Your task to perform on an android device: find which apps use the phone's location Image 0: 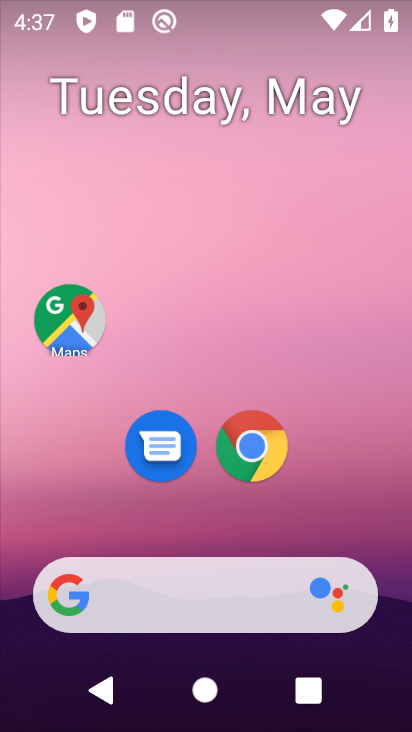
Step 0: drag from (189, 532) to (245, 11)
Your task to perform on an android device: find which apps use the phone's location Image 1: 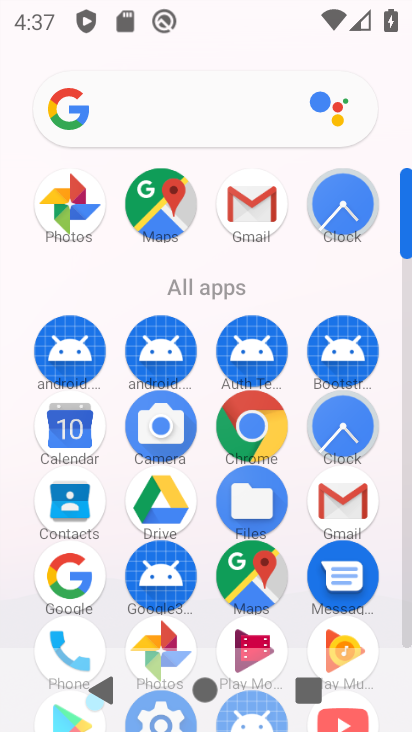
Step 1: drag from (289, 102) to (291, 33)
Your task to perform on an android device: find which apps use the phone's location Image 2: 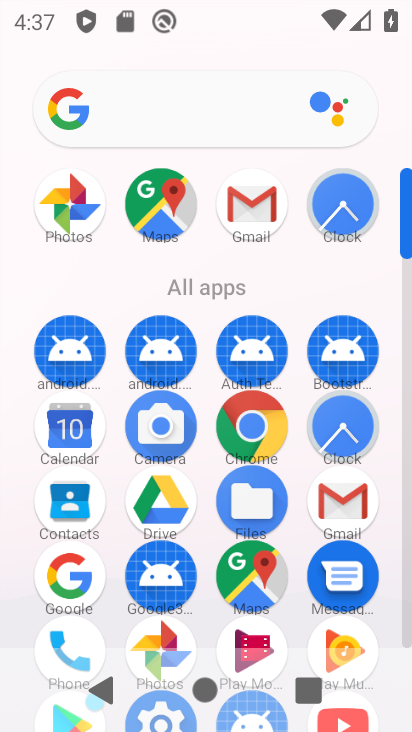
Step 2: drag from (299, 296) to (302, 40)
Your task to perform on an android device: find which apps use the phone's location Image 3: 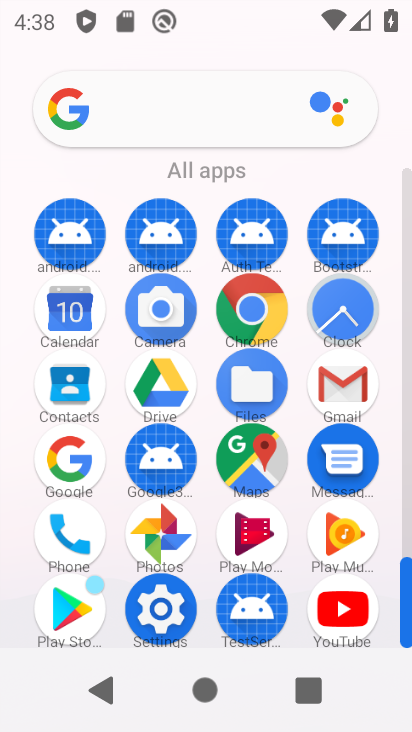
Step 3: drag from (399, 228) to (64, 532)
Your task to perform on an android device: find which apps use the phone's location Image 4: 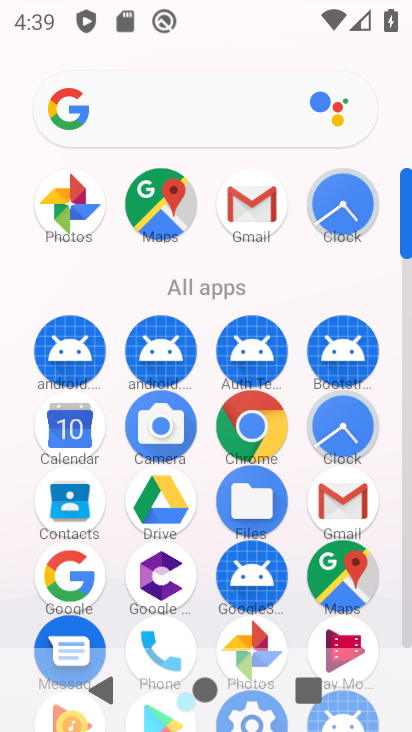
Step 4: drag from (192, 322) to (263, 52)
Your task to perform on an android device: find which apps use the phone's location Image 5: 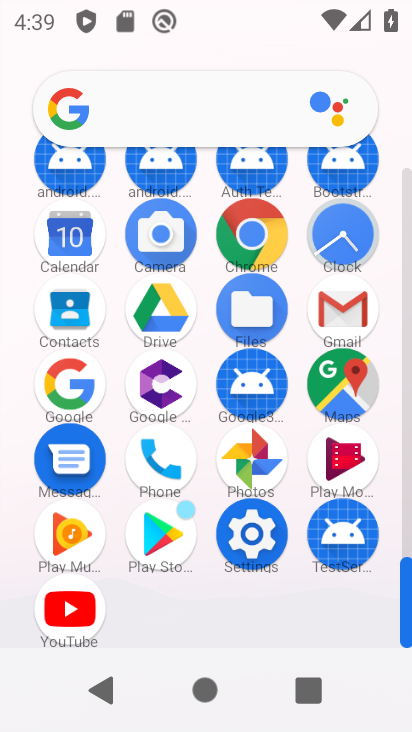
Step 5: click (145, 468)
Your task to perform on an android device: find which apps use the phone's location Image 6: 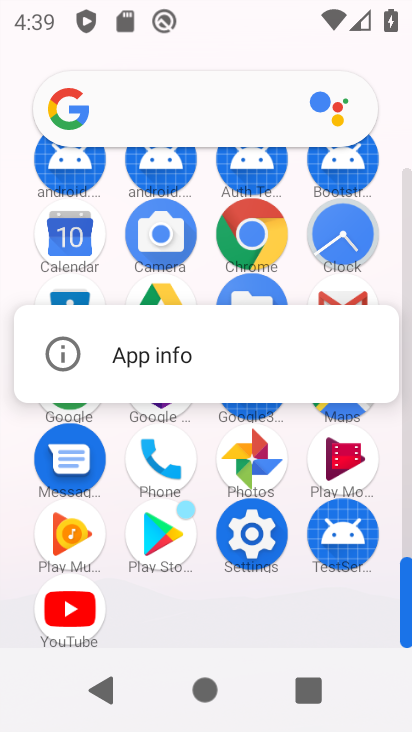
Step 6: click (142, 359)
Your task to perform on an android device: find which apps use the phone's location Image 7: 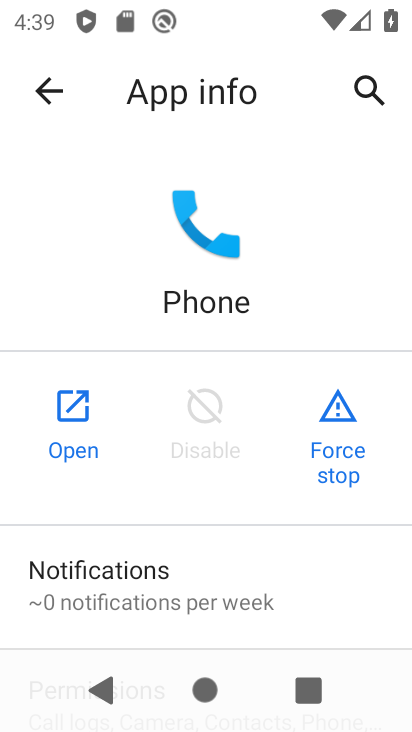
Step 7: drag from (234, 559) to (290, 136)
Your task to perform on an android device: find which apps use the phone's location Image 8: 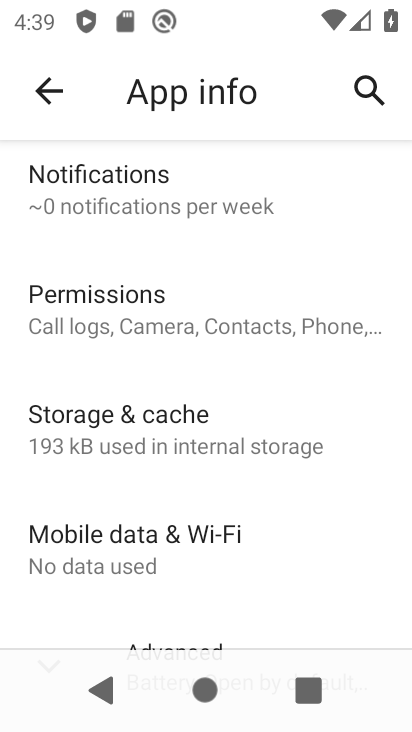
Step 8: drag from (252, 568) to (299, 193)
Your task to perform on an android device: find which apps use the phone's location Image 9: 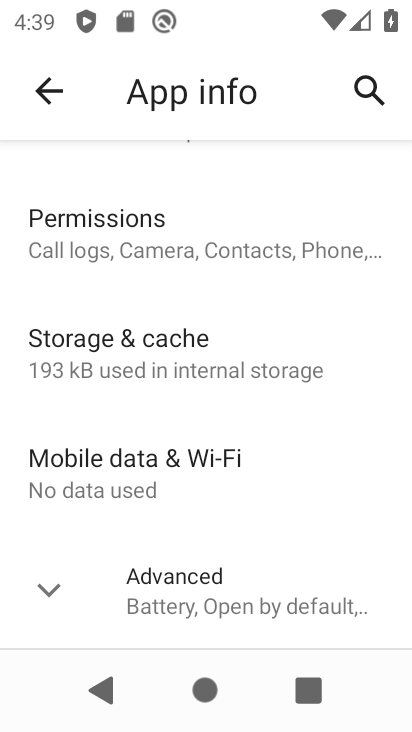
Step 9: click (94, 226)
Your task to perform on an android device: find which apps use the phone's location Image 10: 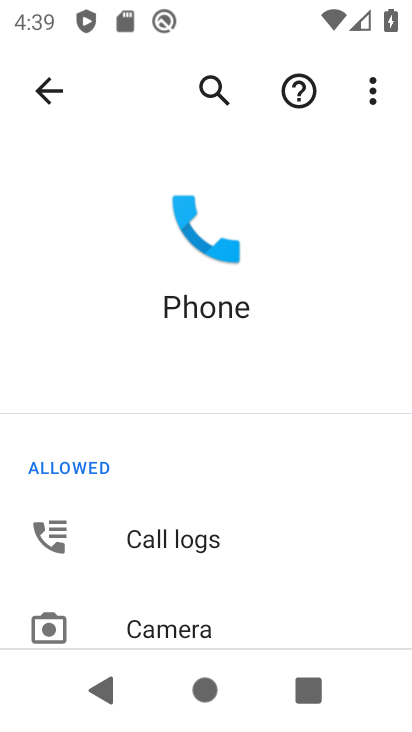
Step 10: drag from (290, 571) to (363, 198)
Your task to perform on an android device: find which apps use the phone's location Image 11: 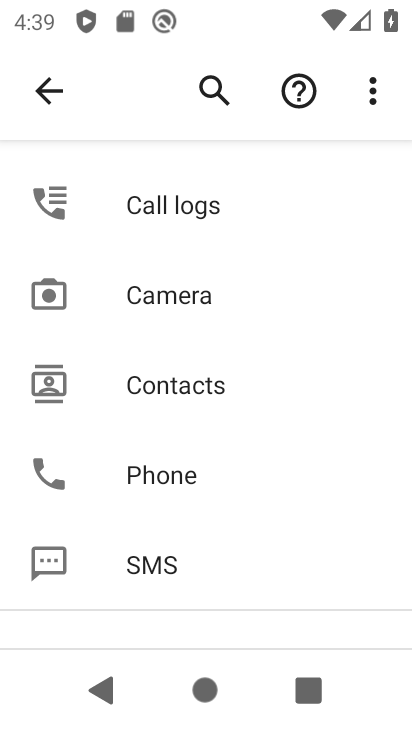
Step 11: drag from (239, 544) to (286, 298)
Your task to perform on an android device: find which apps use the phone's location Image 12: 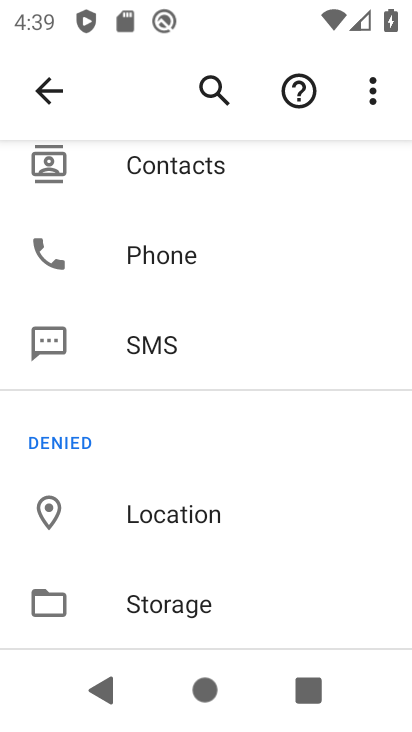
Step 12: click (189, 514)
Your task to perform on an android device: find which apps use the phone's location Image 13: 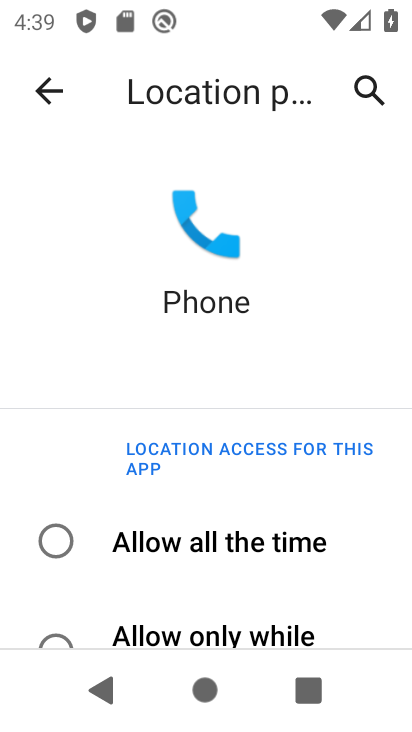
Step 13: click (199, 510)
Your task to perform on an android device: find which apps use the phone's location Image 14: 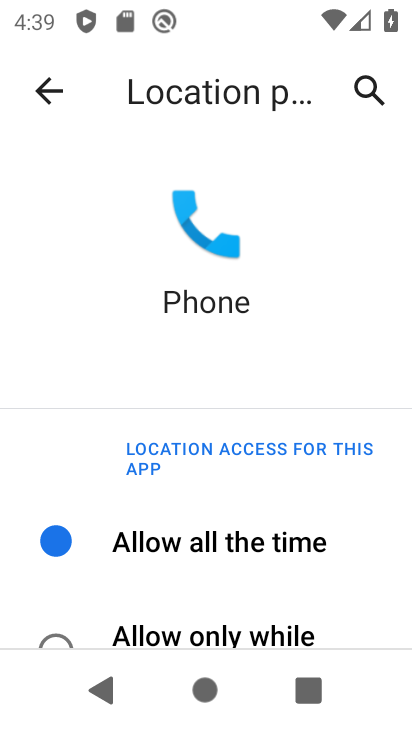
Step 14: task complete